Your task to perform on an android device: What's the weather? Image 0: 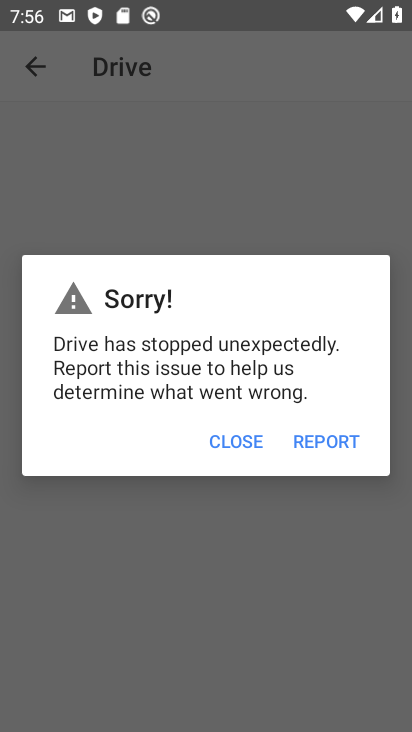
Step 0: press home button
Your task to perform on an android device: What's the weather? Image 1: 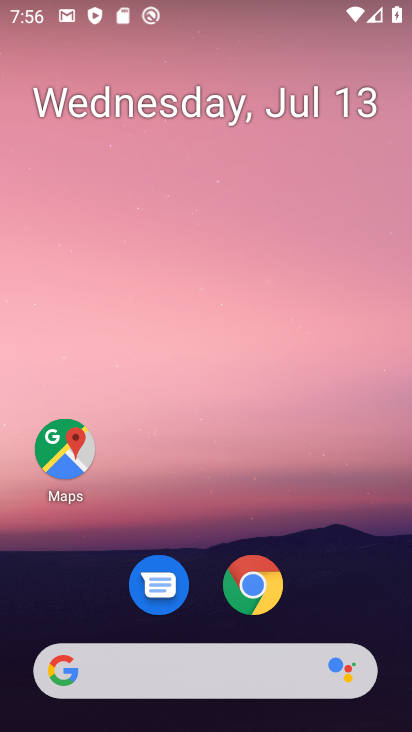
Step 1: click (249, 670)
Your task to perform on an android device: What's the weather? Image 2: 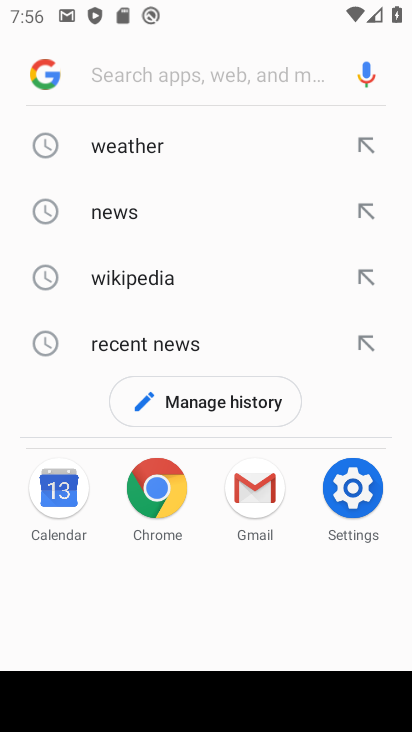
Step 2: click (40, 145)
Your task to perform on an android device: What's the weather? Image 3: 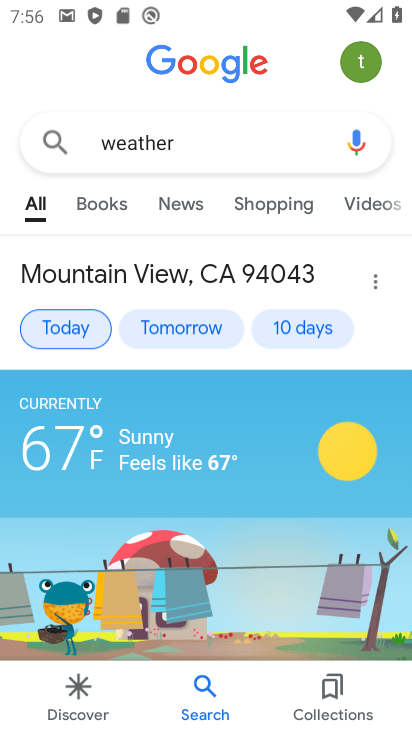
Step 3: click (65, 319)
Your task to perform on an android device: What's the weather? Image 4: 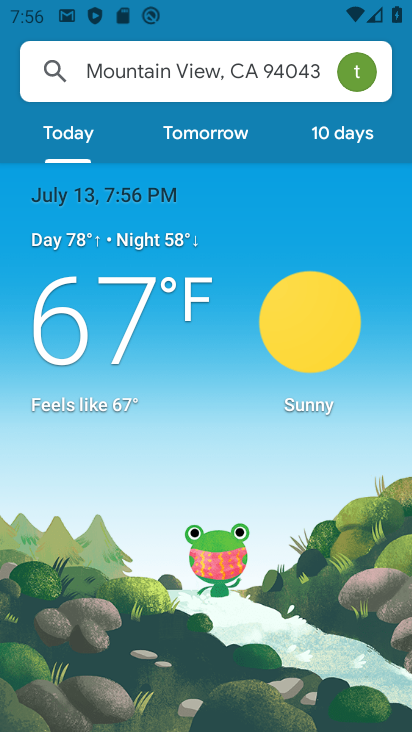
Step 4: task complete